Your task to perform on an android device: check data usage Image 0: 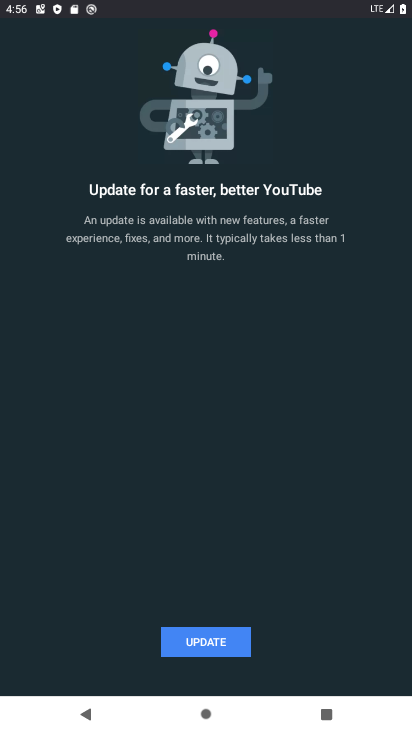
Step 0: press home button
Your task to perform on an android device: check data usage Image 1: 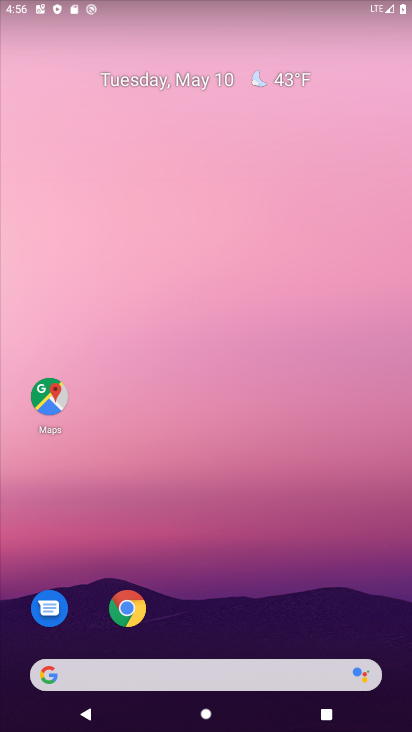
Step 1: drag from (239, 518) to (318, 14)
Your task to perform on an android device: check data usage Image 2: 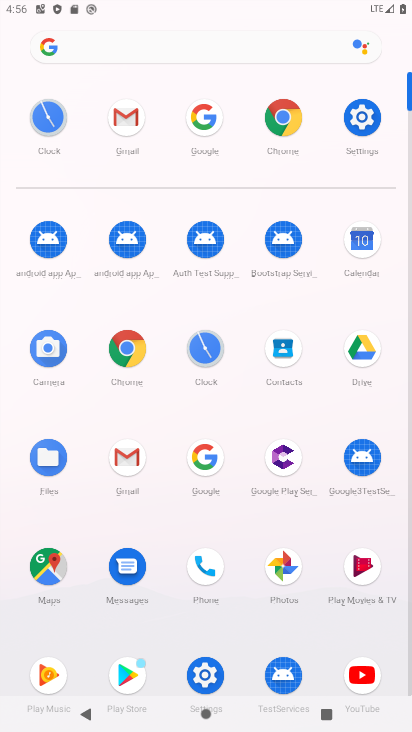
Step 2: click (365, 110)
Your task to perform on an android device: check data usage Image 3: 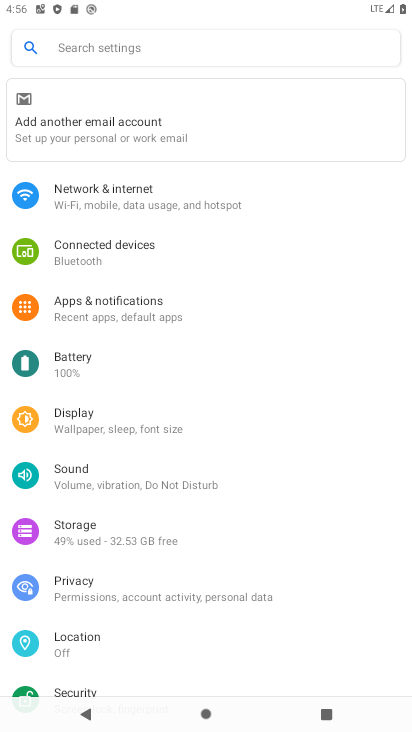
Step 3: click (140, 192)
Your task to perform on an android device: check data usage Image 4: 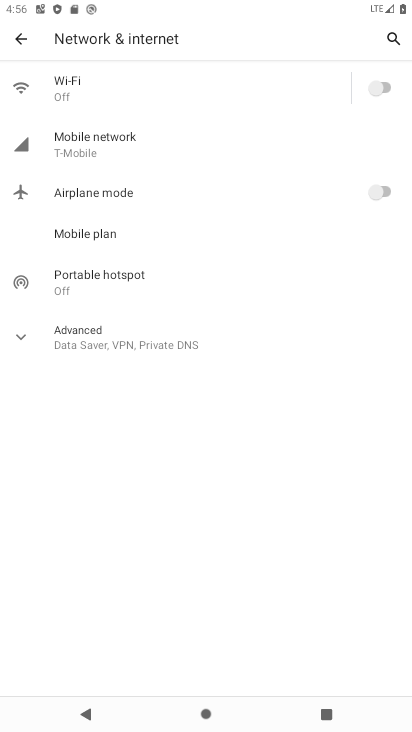
Step 4: click (157, 143)
Your task to perform on an android device: check data usage Image 5: 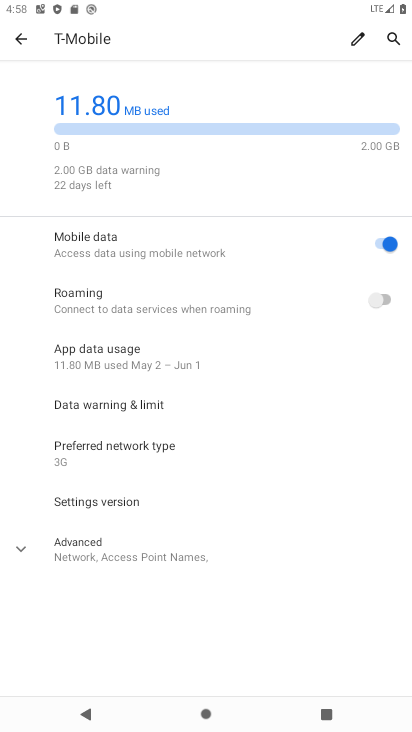
Step 5: click (117, 363)
Your task to perform on an android device: check data usage Image 6: 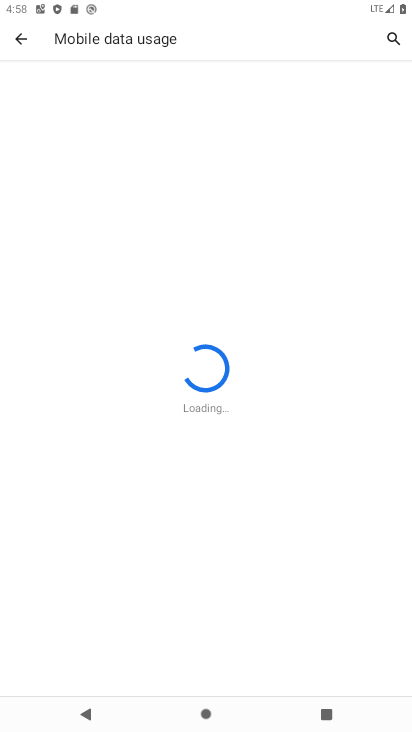
Step 6: task complete